Your task to perform on an android device: Show me the alarms in the clock app Image 0: 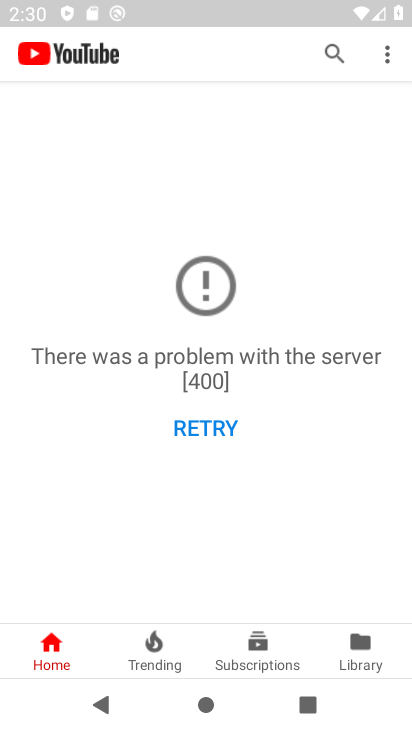
Step 0: press home button
Your task to perform on an android device: Show me the alarms in the clock app Image 1: 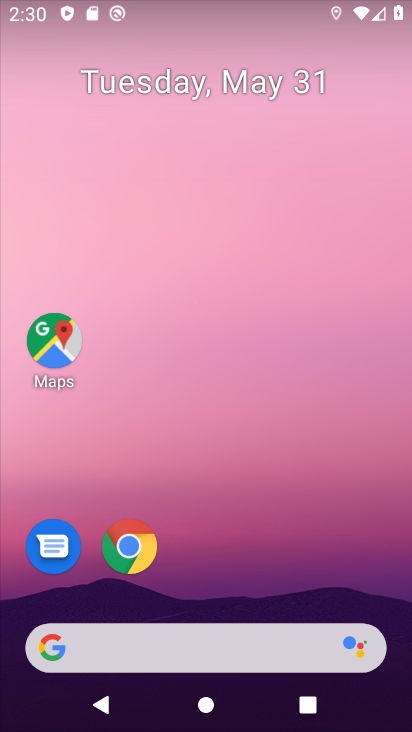
Step 1: drag from (195, 540) to (226, 59)
Your task to perform on an android device: Show me the alarms in the clock app Image 2: 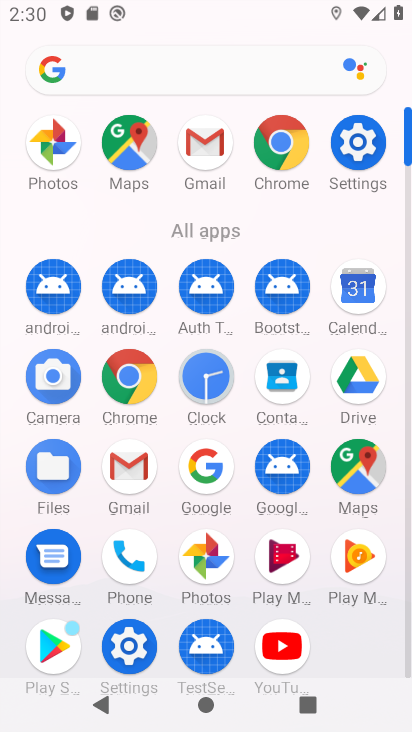
Step 2: click (211, 370)
Your task to perform on an android device: Show me the alarms in the clock app Image 3: 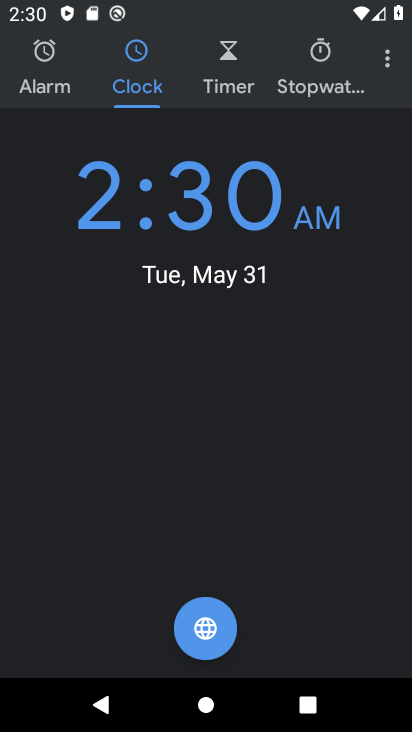
Step 3: click (53, 66)
Your task to perform on an android device: Show me the alarms in the clock app Image 4: 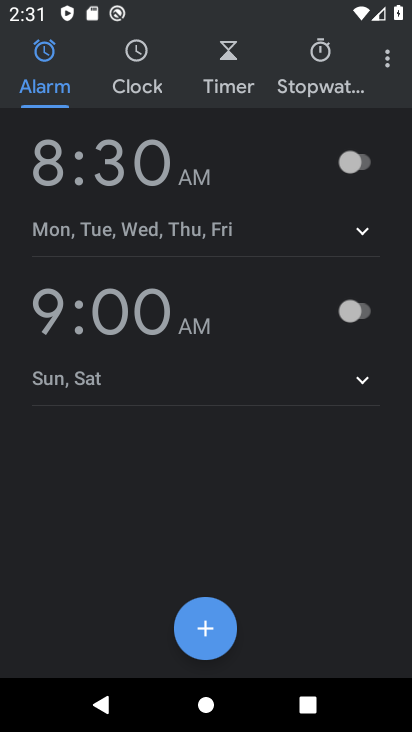
Step 4: task complete